Your task to perform on an android device: What's the weather? Image 0: 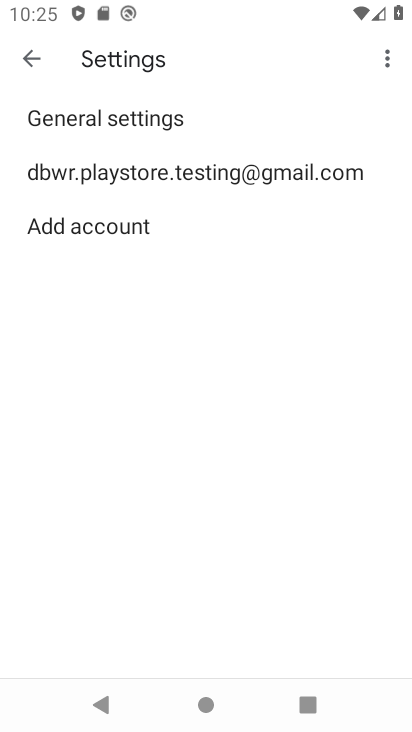
Step 0: press home button
Your task to perform on an android device: What's the weather? Image 1: 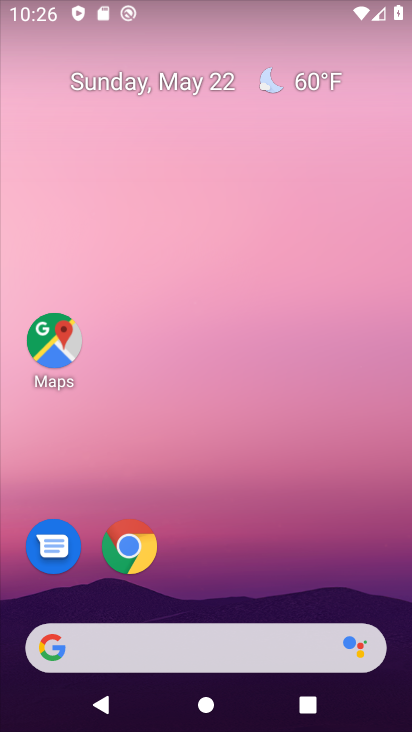
Step 1: click (272, 84)
Your task to perform on an android device: What's the weather? Image 2: 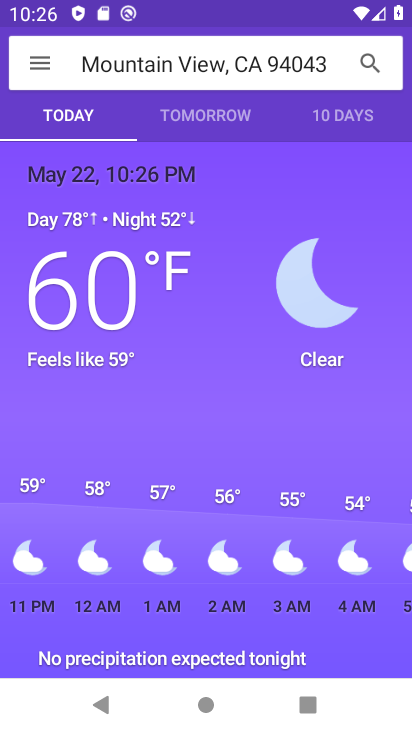
Step 2: task complete